Your task to perform on an android device: Search for pizza restaurants on Maps Image 0: 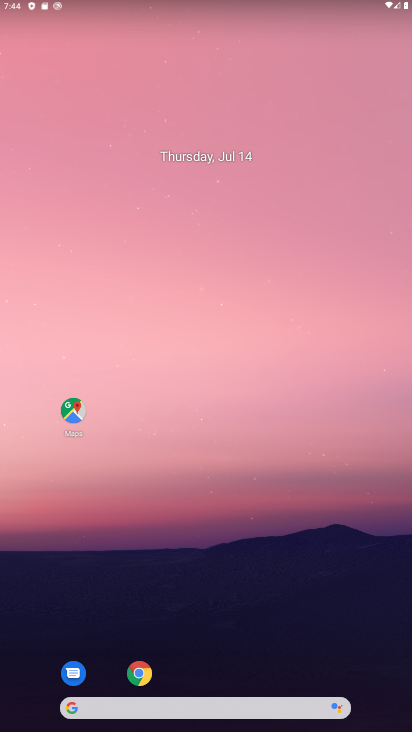
Step 0: drag from (174, 685) to (223, 161)
Your task to perform on an android device: Search for pizza restaurants on Maps Image 1: 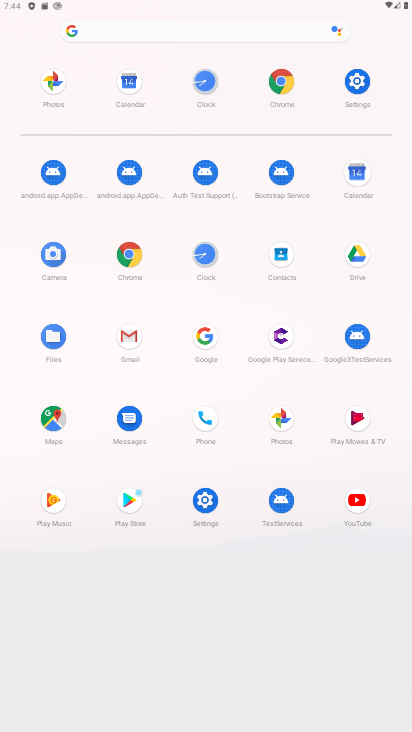
Step 1: click (54, 415)
Your task to perform on an android device: Search for pizza restaurants on Maps Image 2: 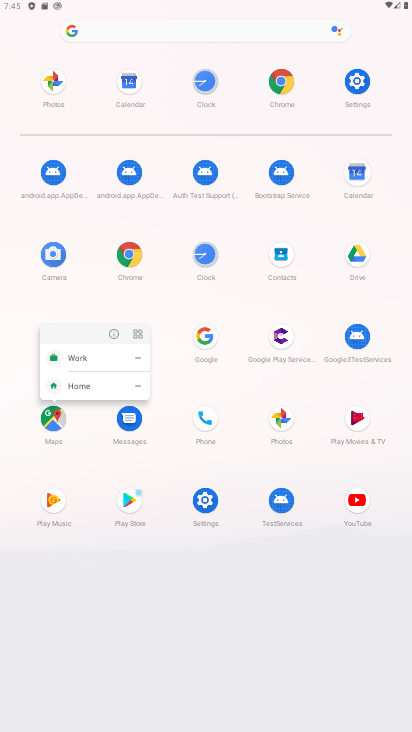
Step 2: click (109, 333)
Your task to perform on an android device: Search for pizza restaurants on Maps Image 3: 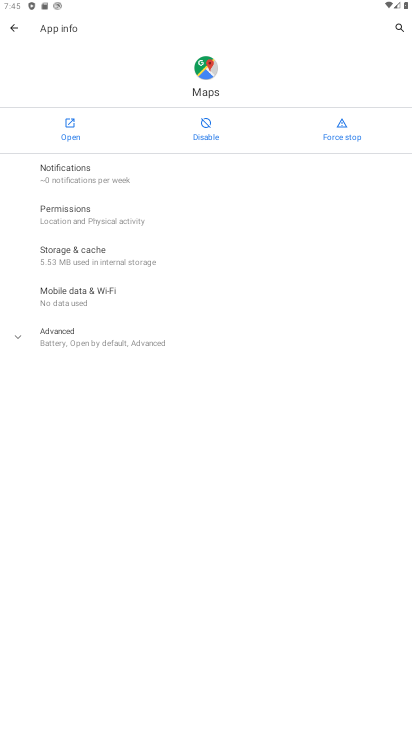
Step 3: drag from (170, 475) to (167, 250)
Your task to perform on an android device: Search for pizza restaurants on Maps Image 4: 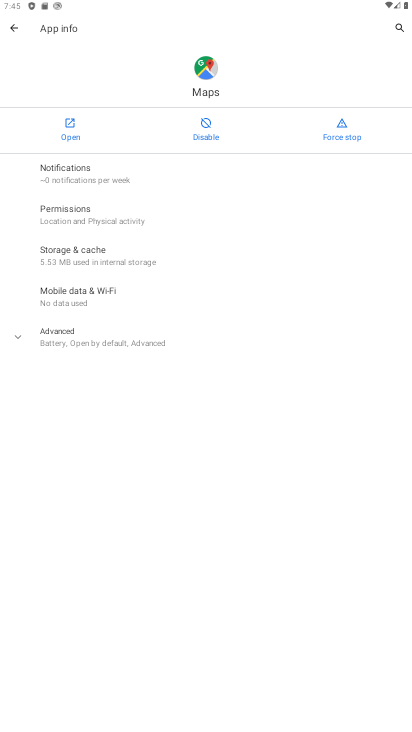
Step 4: click (70, 128)
Your task to perform on an android device: Search for pizza restaurants on Maps Image 5: 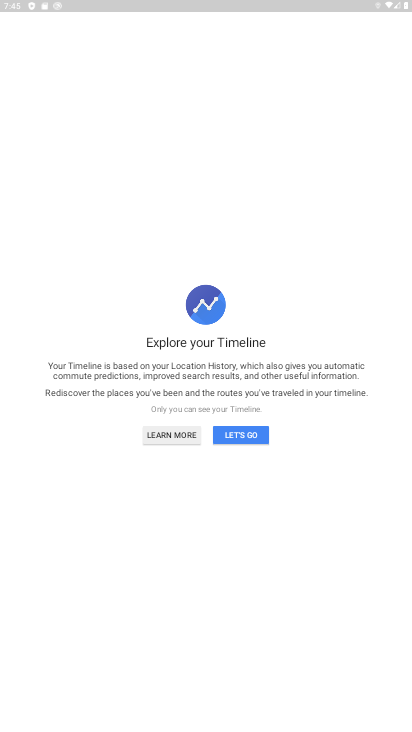
Step 5: drag from (291, 631) to (283, 390)
Your task to perform on an android device: Search for pizza restaurants on Maps Image 6: 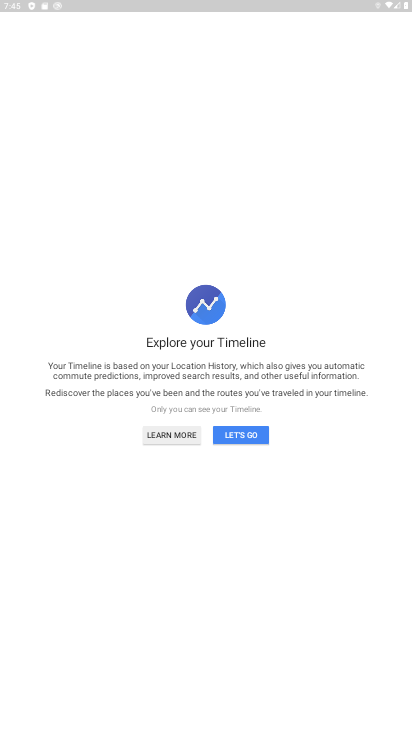
Step 6: click (242, 436)
Your task to perform on an android device: Search for pizza restaurants on Maps Image 7: 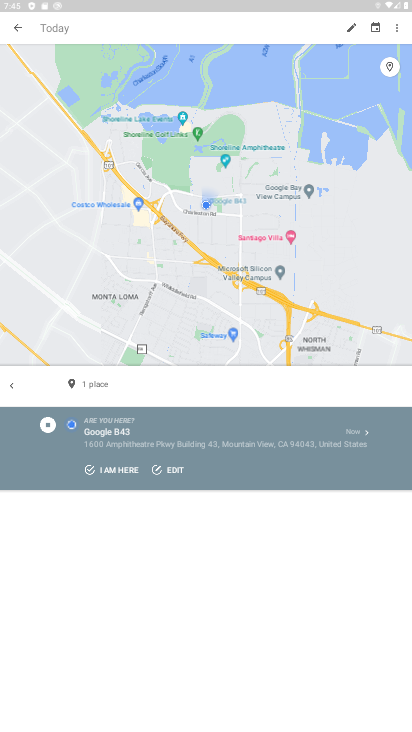
Step 7: drag from (229, 603) to (234, 369)
Your task to perform on an android device: Search for pizza restaurants on Maps Image 8: 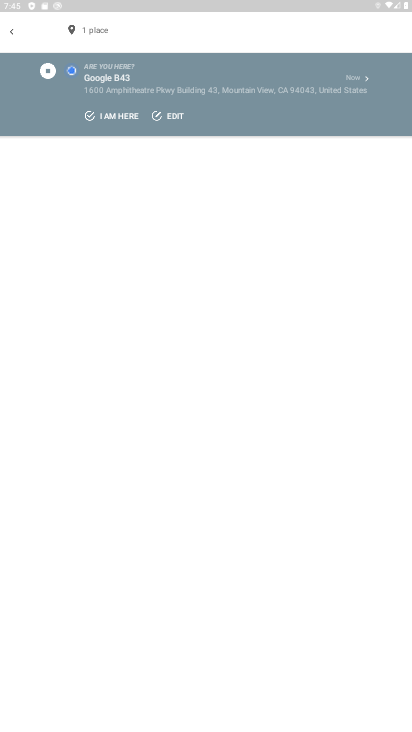
Step 8: drag from (241, 665) to (242, 374)
Your task to perform on an android device: Search for pizza restaurants on Maps Image 9: 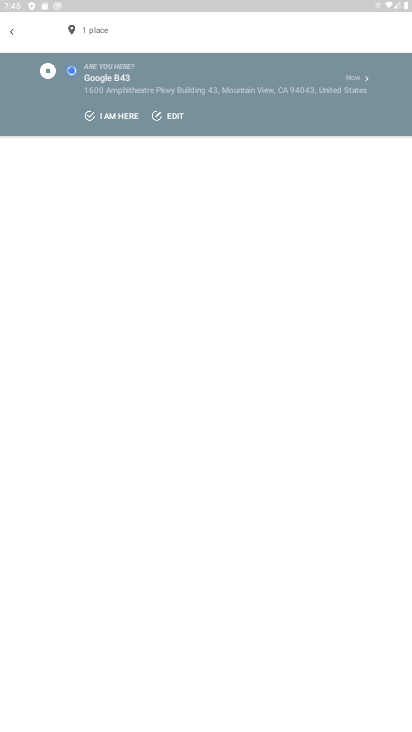
Step 9: drag from (220, 242) to (327, 710)
Your task to perform on an android device: Search for pizza restaurants on Maps Image 10: 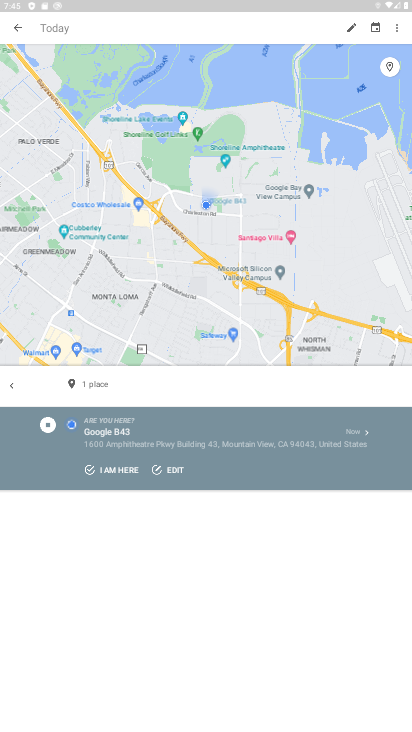
Step 10: press back button
Your task to perform on an android device: Search for pizza restaurants on Maps Image 11: 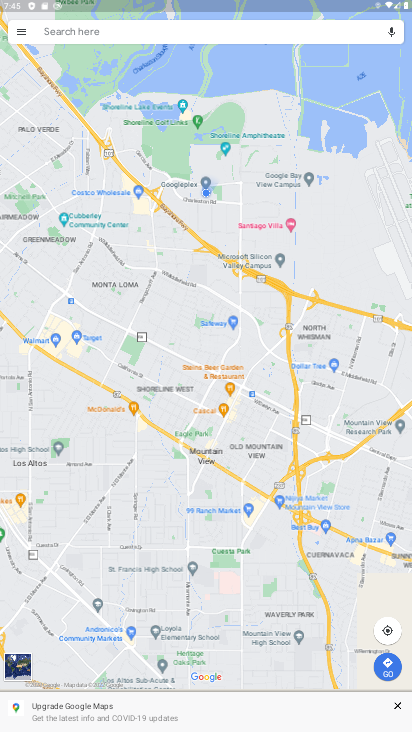
Step 11: click (112, 28)
Your task to perform on an android device: Search for pizza restaurants on Maps Image 12: 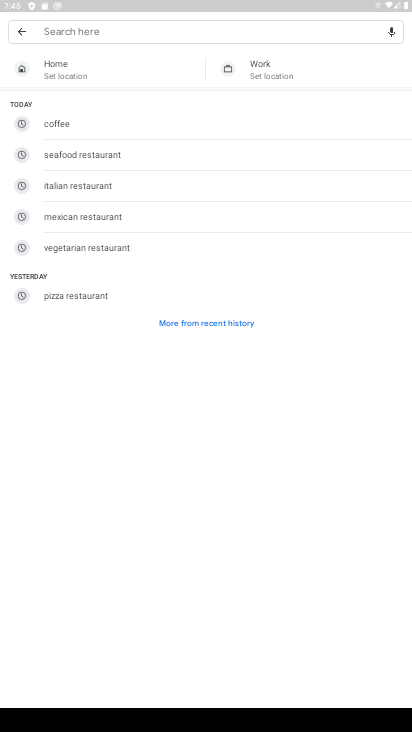
Step 12: click (93, 293)
Your task to perform on an android device: Search for pizza restaurants on Maps Image 13: 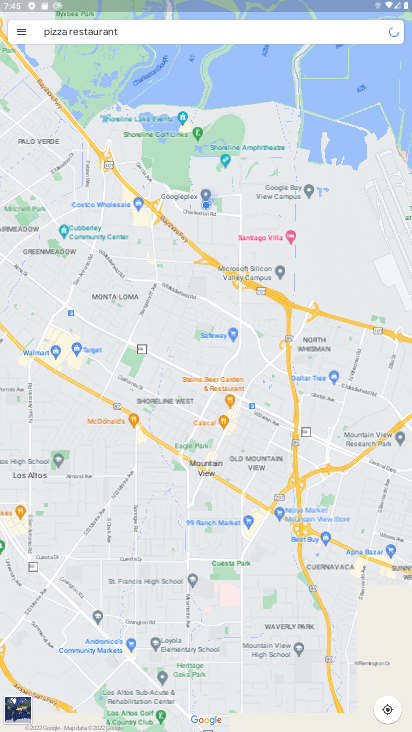
Step 13: task complete